Your task to perform on an android device: change the clock display to analog Image 0: 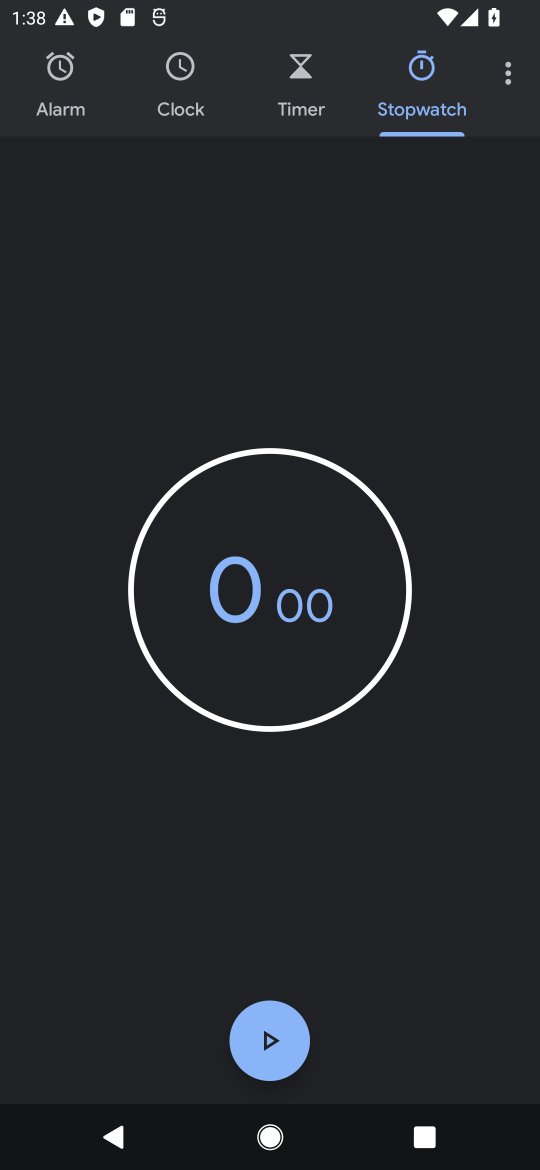
Step 0: press back button
Your task to perform on an android device: change the clock display to analog Image 1: 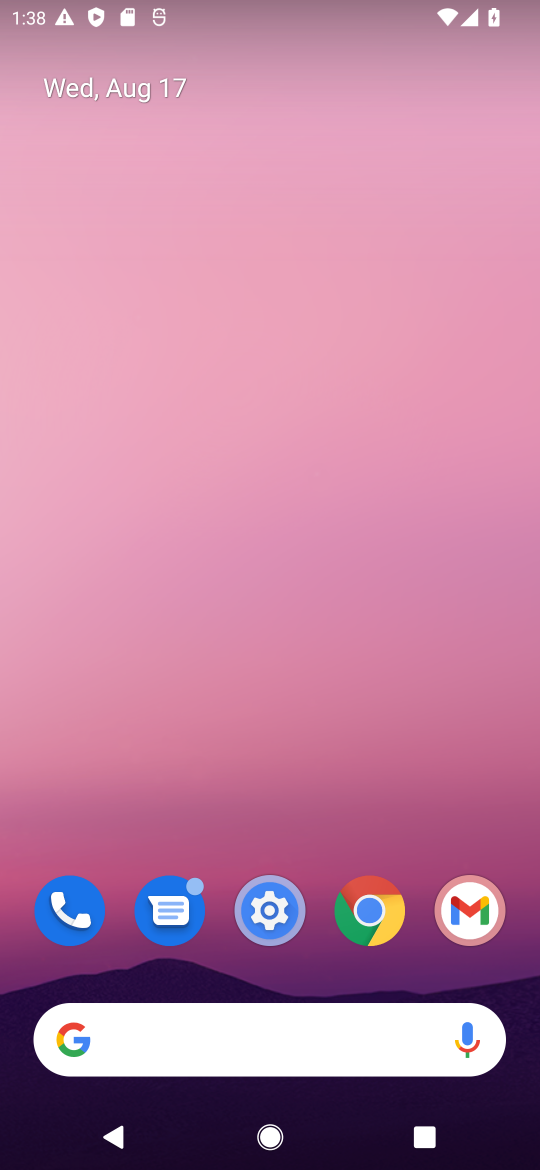
Step 1: drag from (214, 964) to (378, 166)
Your task to perform on an android device: change the clock display to analog Image 2: 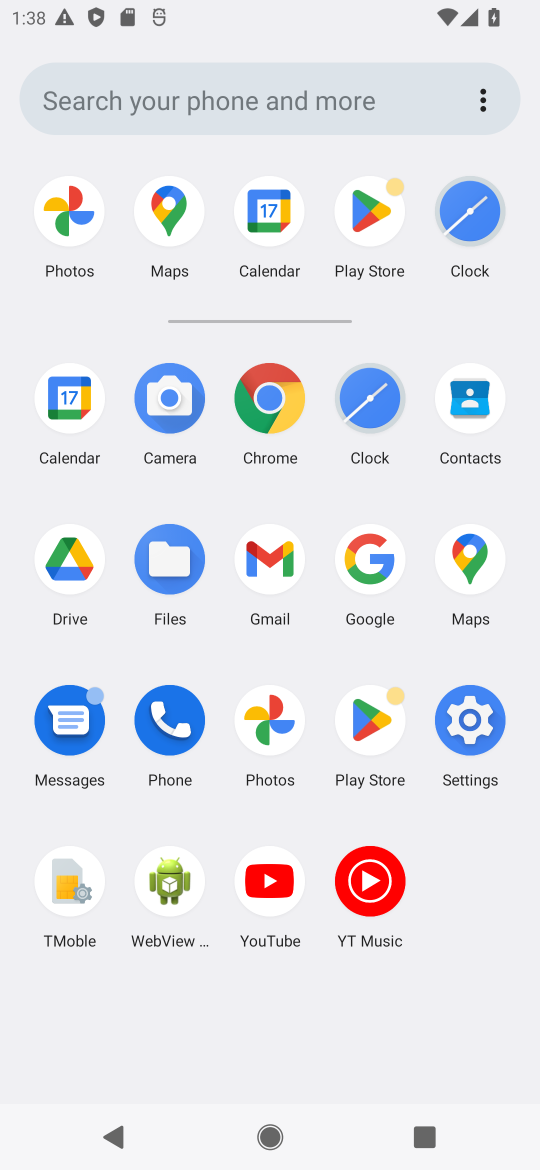
Step 2: click (439, 200)
Your task to perform on an android device: change the clock display to analog Image 3: 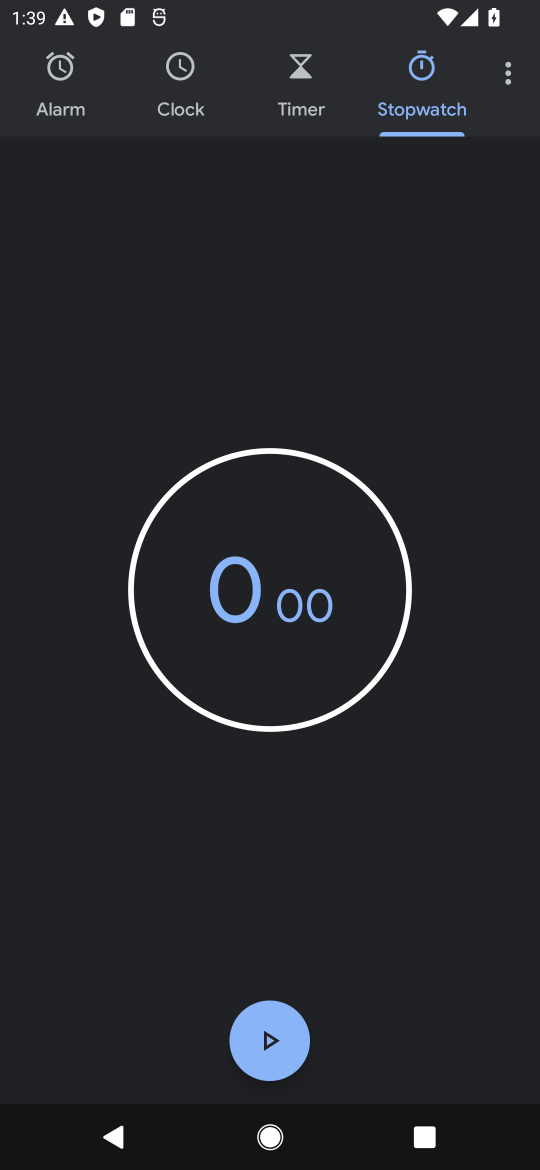
Step 3: click (513, 69)
Your task to perform on an android device: change the clock display to analog Image 4: 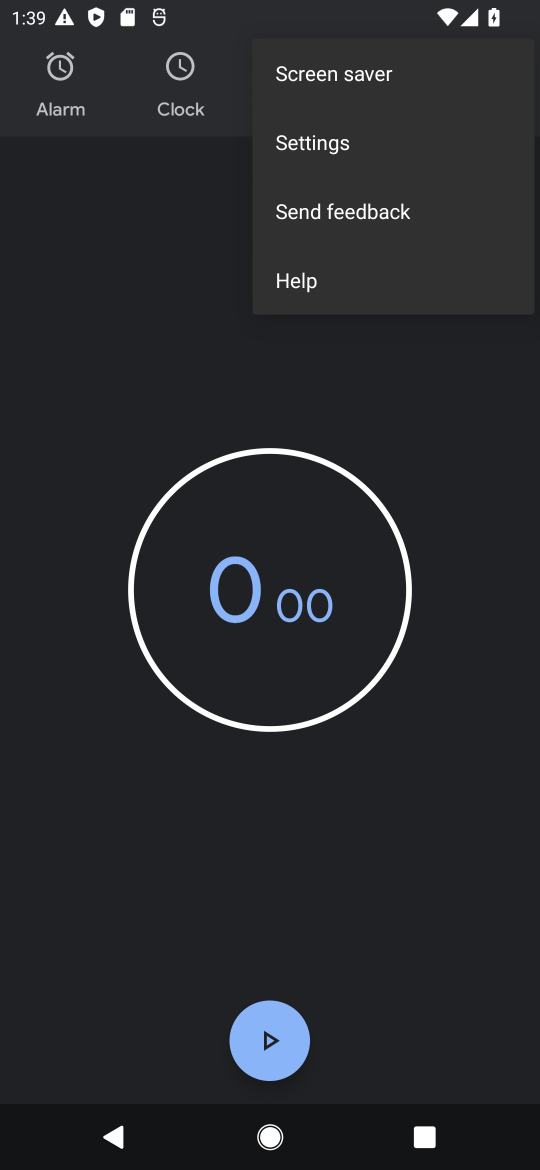
Step 4: click (331, 155)
Your task to perform on an android device: change the clock display to analog Image 5: 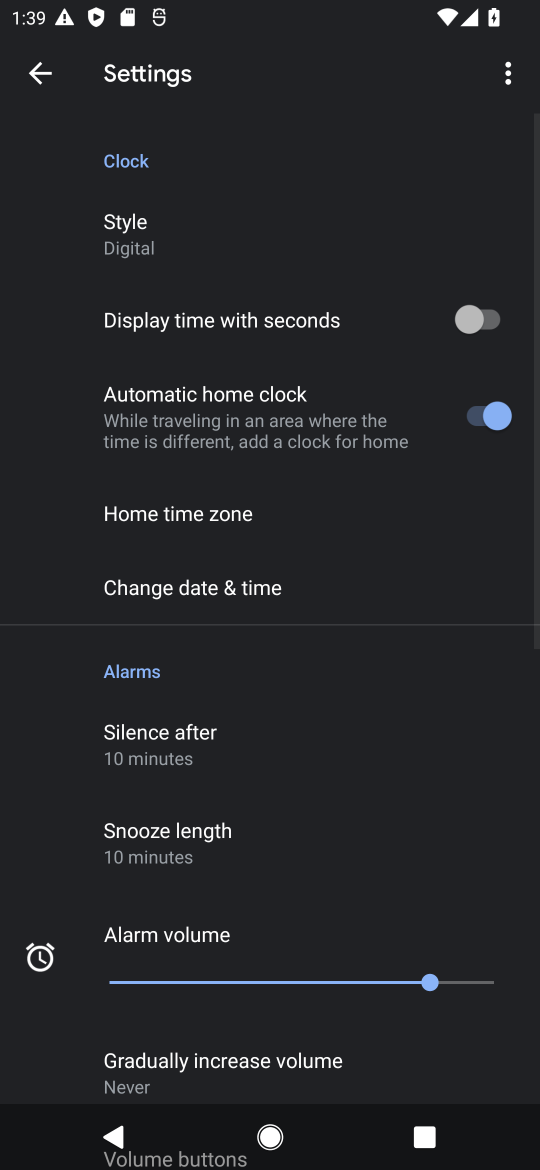
Step 5: click (127, 241)
Your task to perform on an android device: change the clock display to analog Image 6: 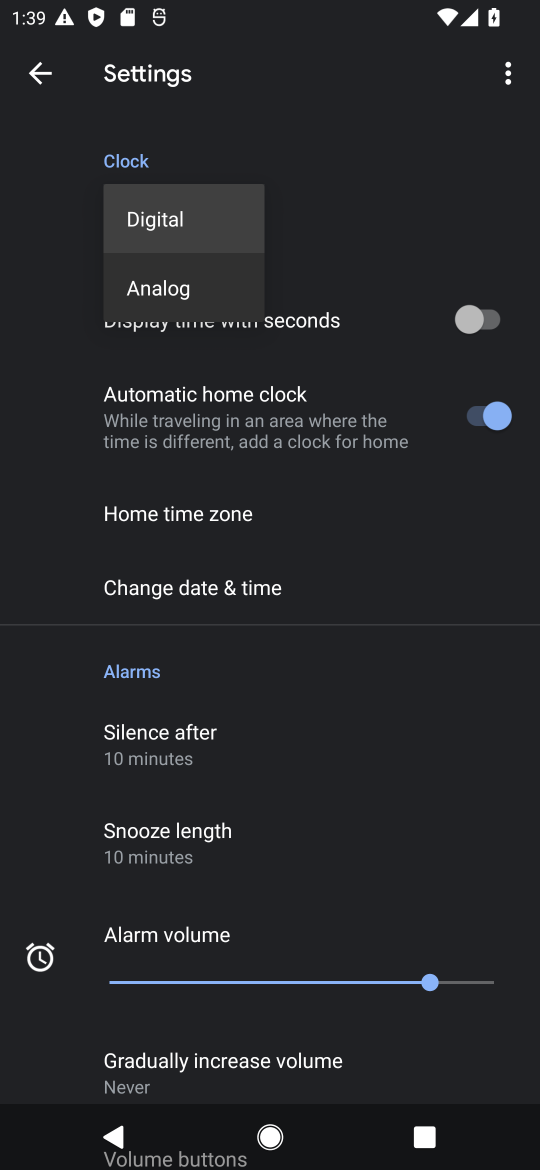
Step 6: click (169, 298)
Your task to perform on an android device: change the clock display to analog Image 7: 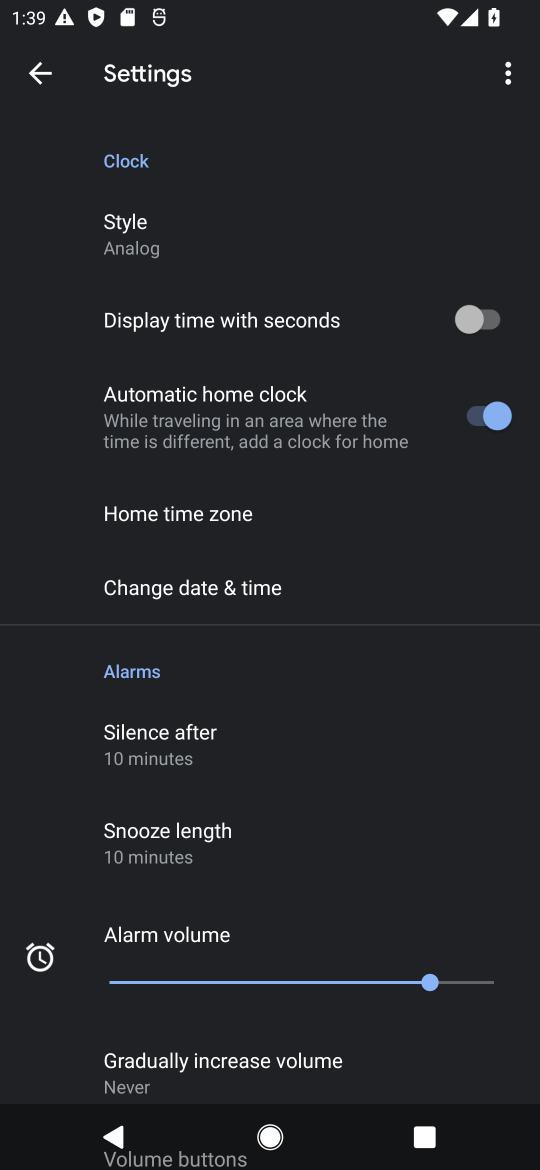
Step 7: task complete